Your task to perform on an android device: turn off location Image 0: 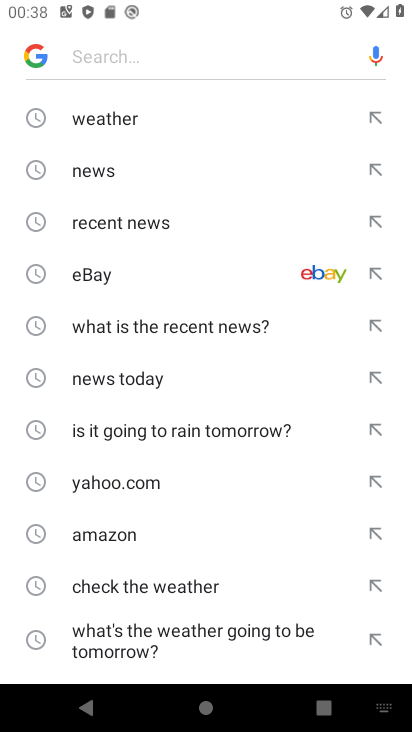
Step 0: press home button
Your task to perform on an android device: turn off location Image 1: 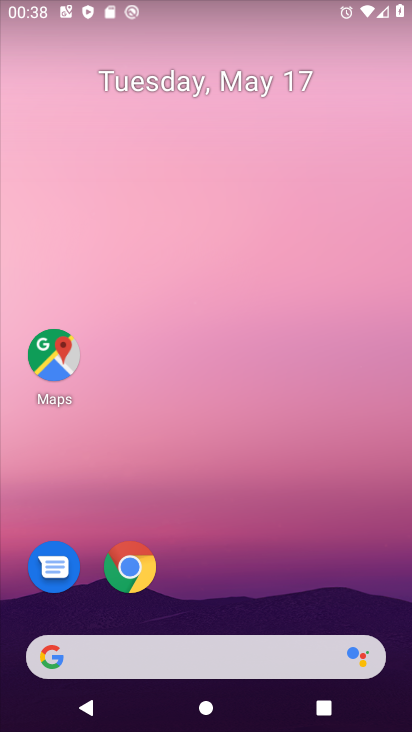
Step 1: drag from (227, 510) to (127, 55)
Your task to perform on an android device: turn off location Image 2: 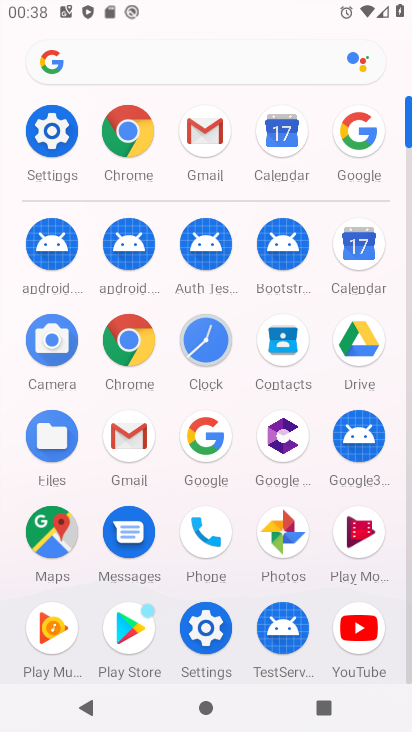
Step 2: click (55, 127)
Your task to perform on an android device: turn off location Image 3: 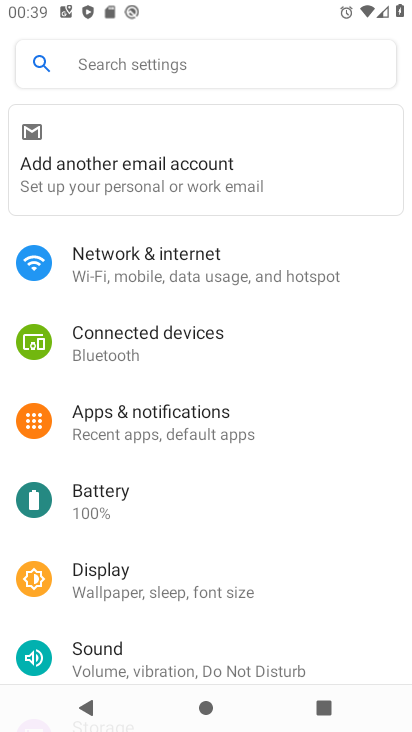
Step 3: drag from (221, 555) to (81, 136)
Your task to perform on an android device: turn off location Image 4: 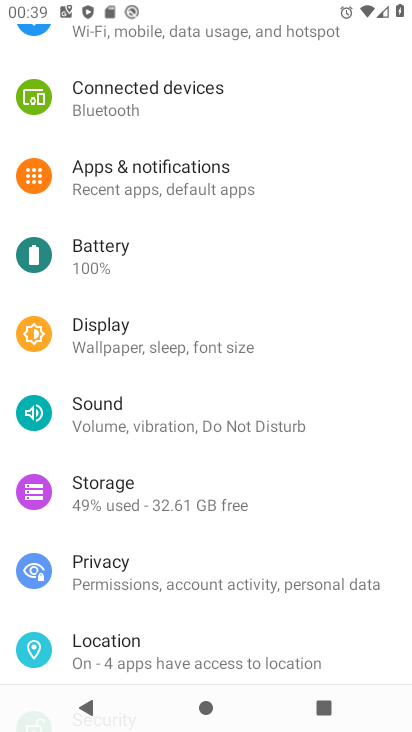
Step 4: click (103, 645)
Your task to perform on an android device: turn off location Image 5: 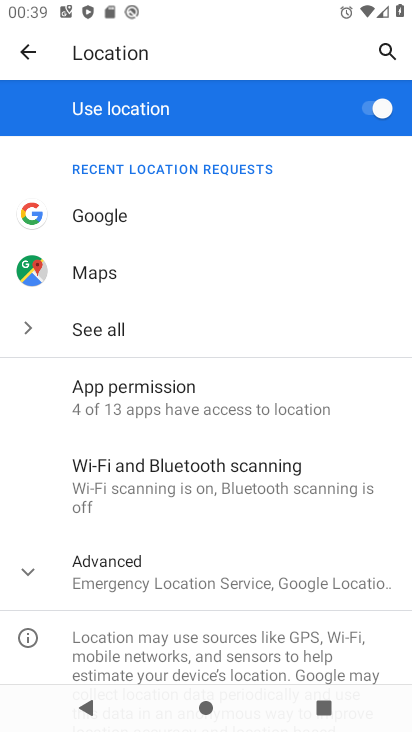
Step 5: task complete